Your task to perform on an android device: open app "Messages" Image 0: 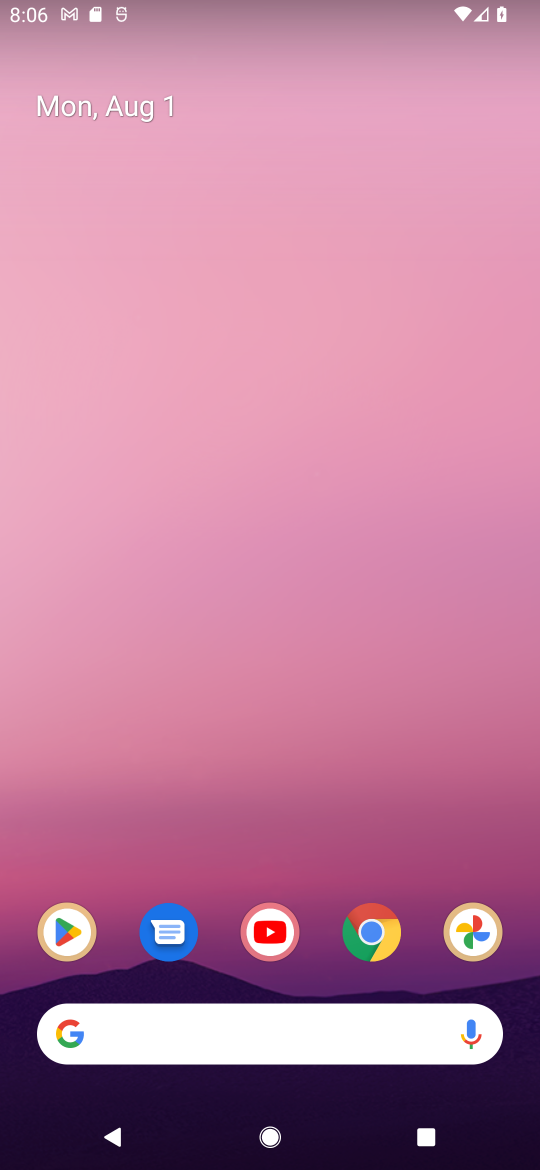
Step 0: click (64, 944)
Your task to perform on an android device: open app "Messages" Image 1: 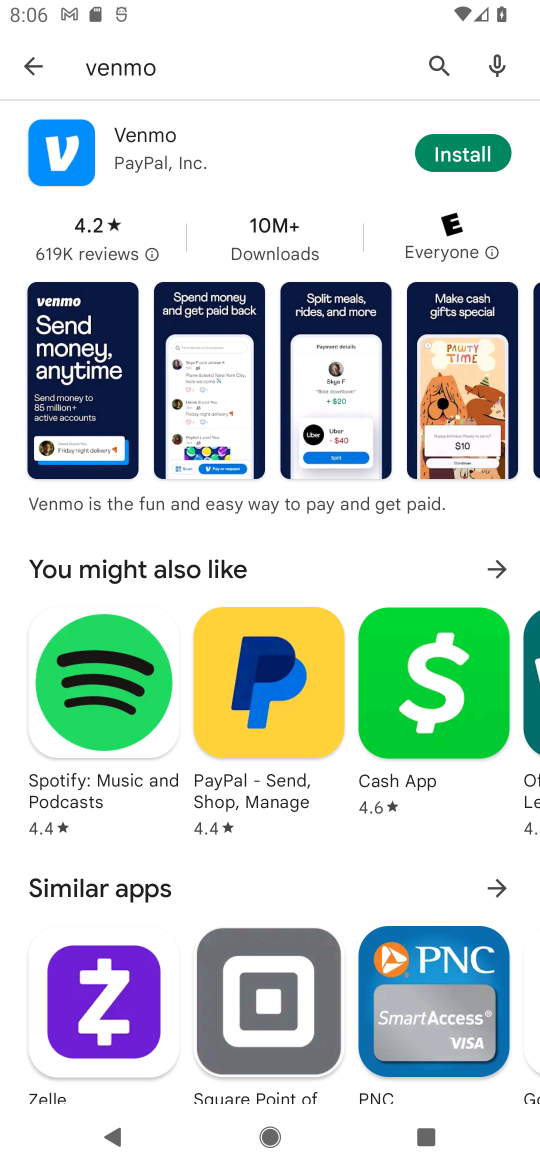
Step 1: click (204, 89)
Your task to perform on an android device: open app "Messages" Image 2: 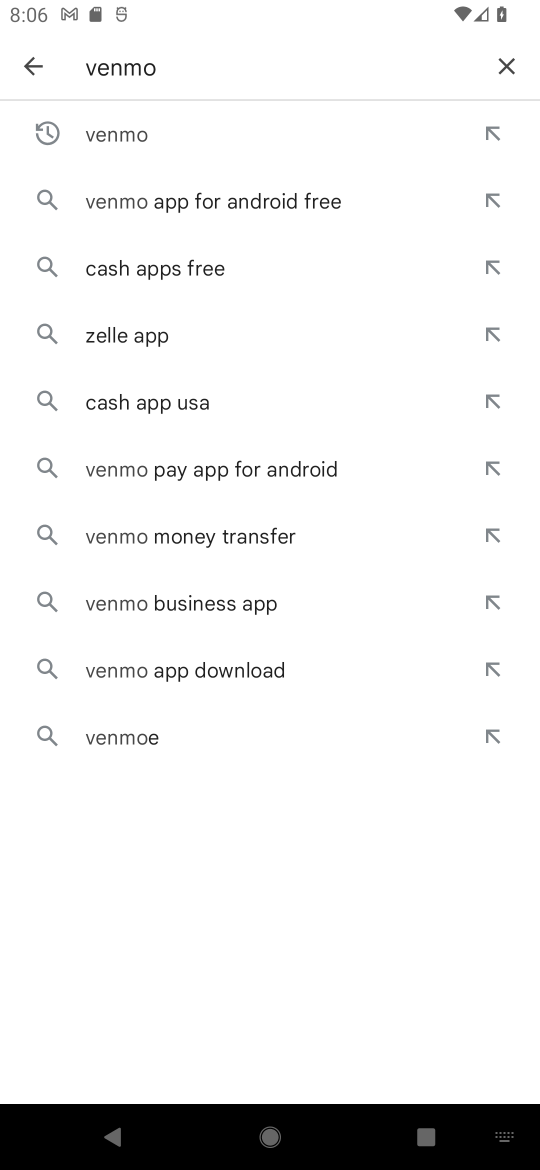
Step 2: click (514, 61)
Your task to perform on an android device: open app "Messages" Image 3: 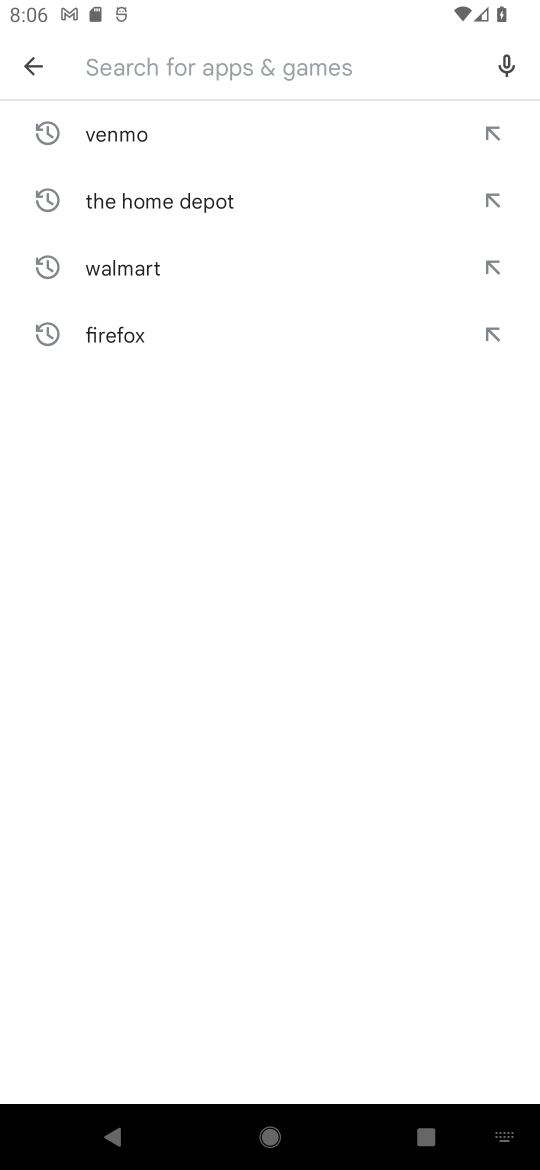
Step 3: type "messages"
Your task to perform on an android device: open app "Messages" Image 4: 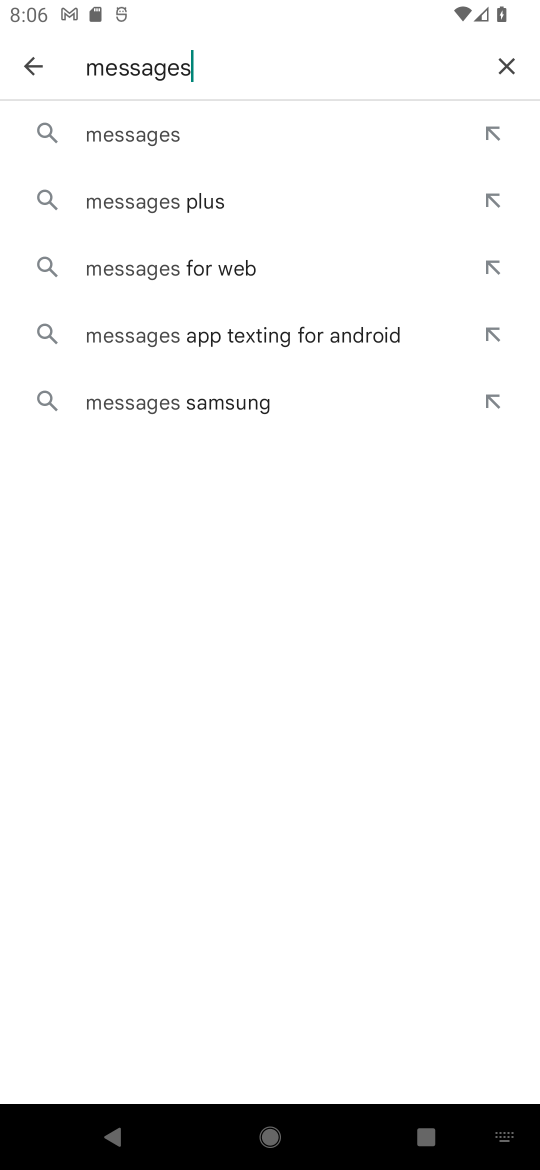
Step 4: click (101, 130)
Your task to perform on an android device: open app "Messages" Image 5: 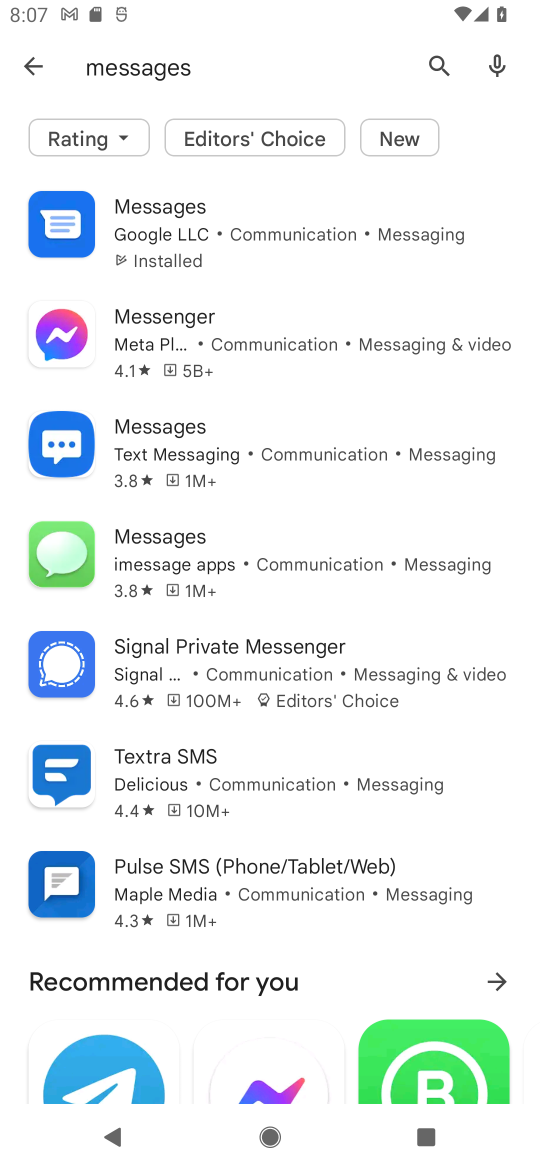
Step 5: click (181, 236)
Your task to perform on an android device: open app "Messages" Image 6: 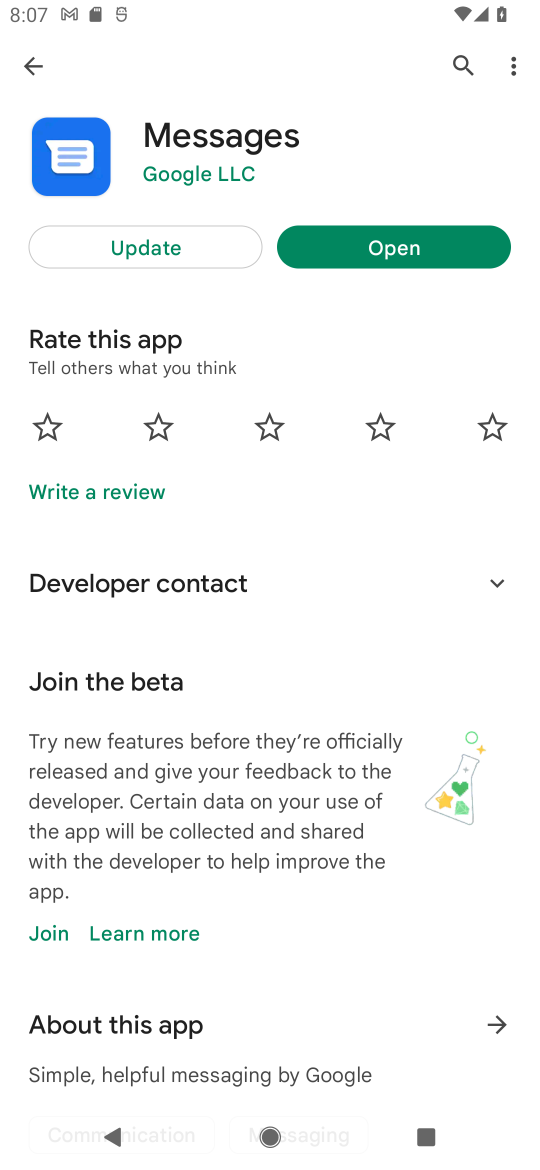
Step 6: click (399, 265)
Your task to perform on an android device: open app "Messages" Image 7: 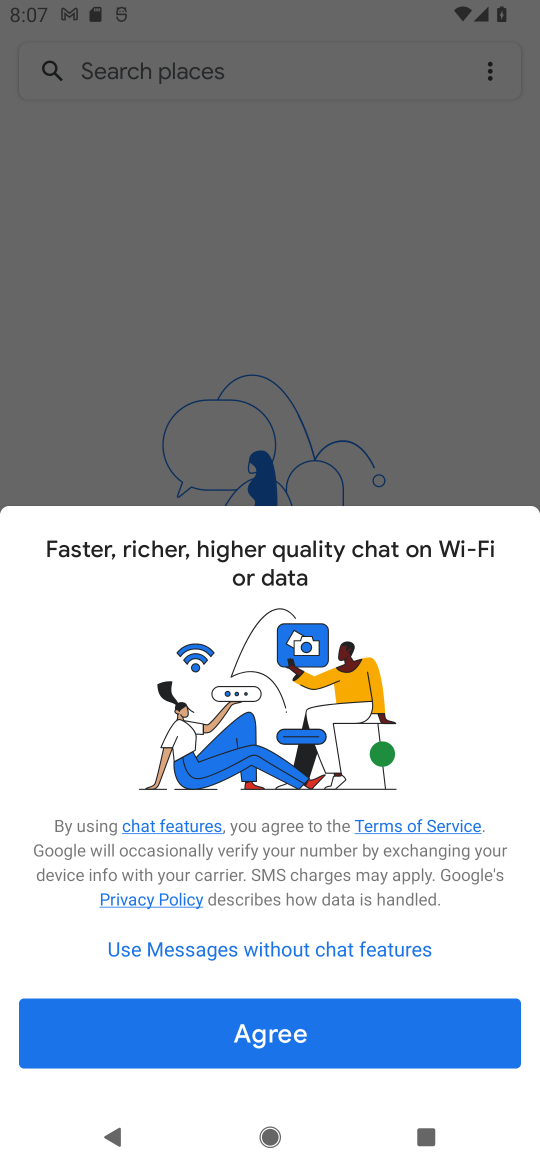
Step 7: click (322, 1031)
Your task to perform on an android device: open app "Messages" Image 8: 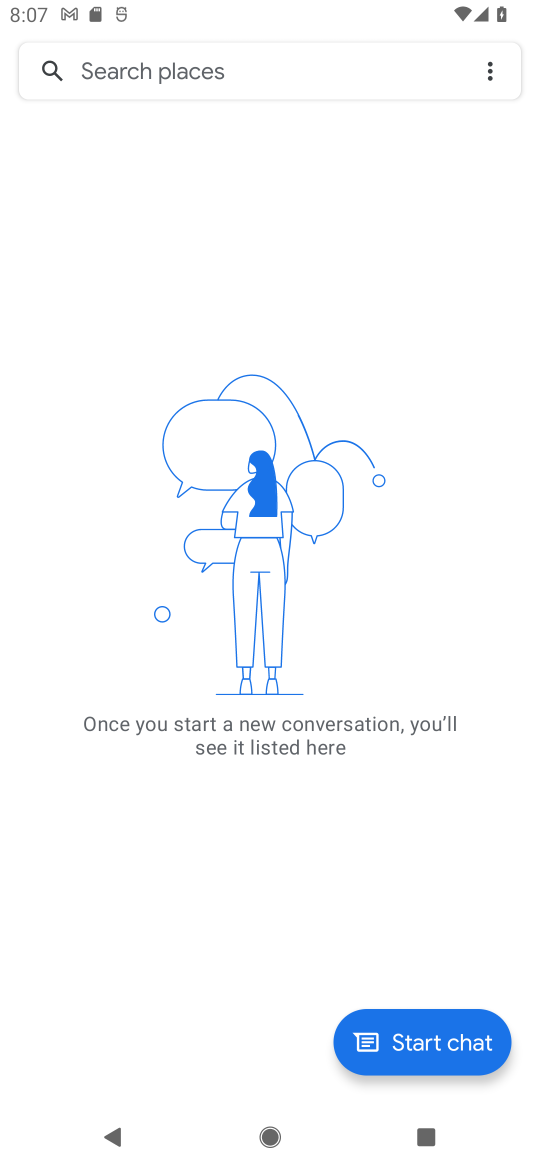
Step 8: task complete